Your task to perform on an android device: Show me recent news Image 0: 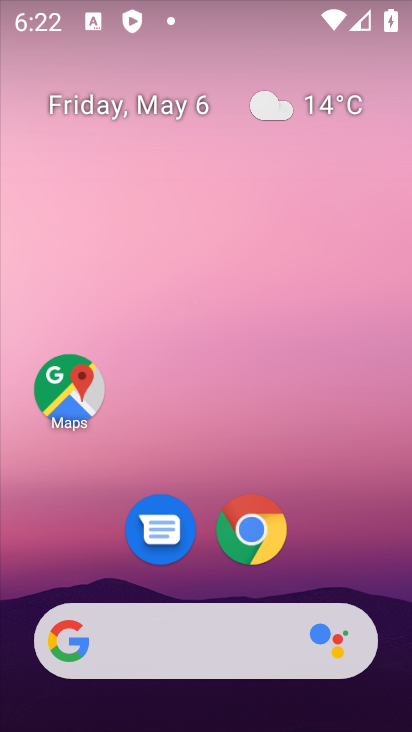
Step 0: click (197, 651)
Your task to perform on an android device: Show me recent news Image 1: 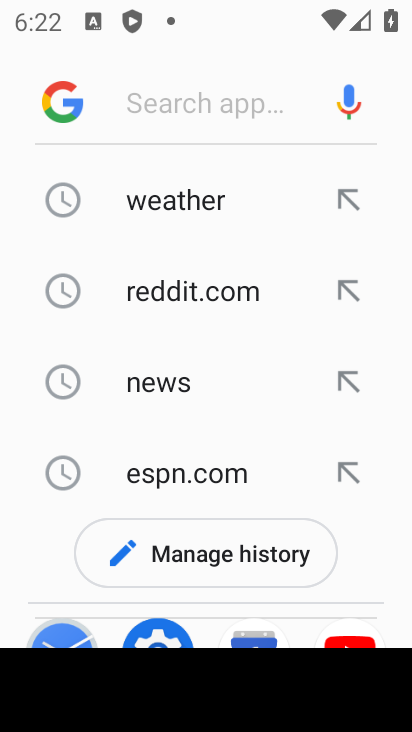
Step 1: click (177, 387)
Your task to perform on an android device: Show me recent news Image 2: 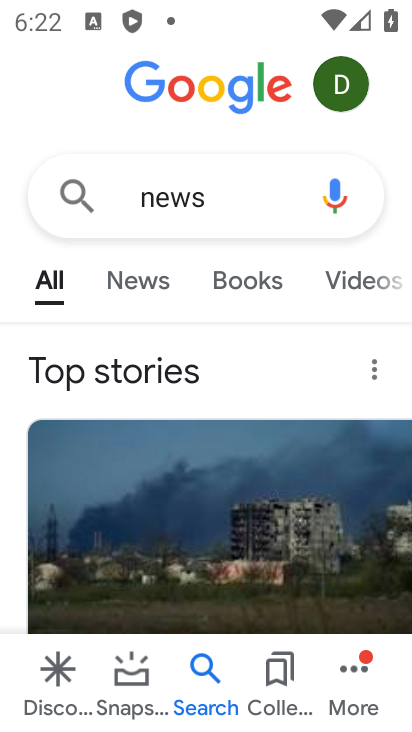
Step 2: click (151, 280)
Your task to perform on an android device: Show me recent news Image 3: 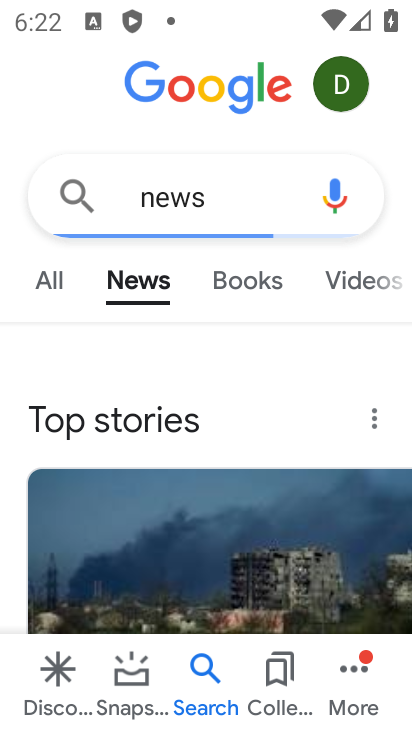
Step 3: task complete